Your task to perform on an android device: change notifications settings Image 0: 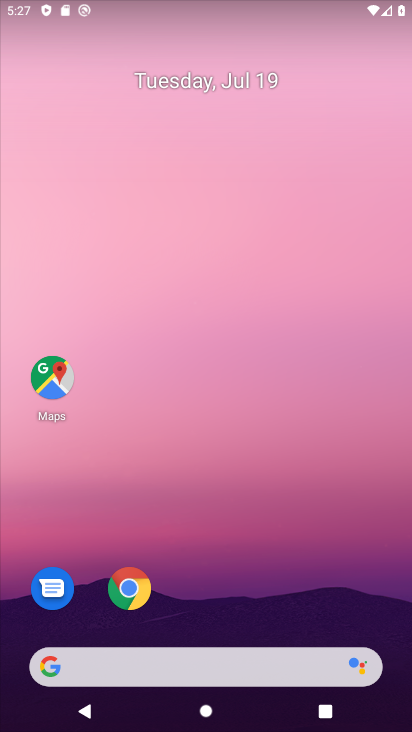
Step 0: drag from (172, 622) to (164, 198)
Your task to perform on an android device: change notifications settings Image 1: 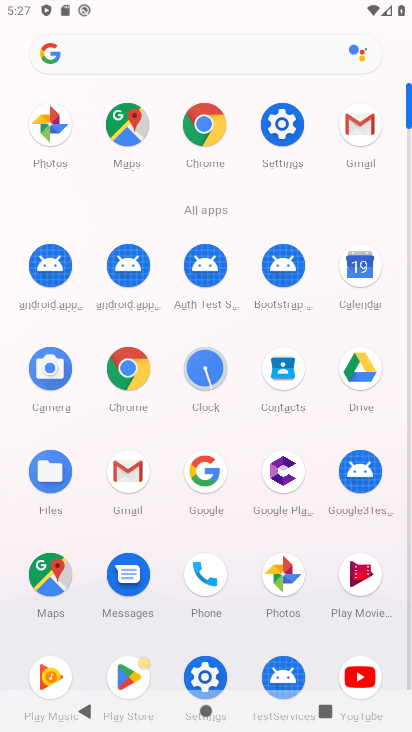
Step 1: click (287, 115)
Your task to perform on an android device: change notifications settings Image 2: 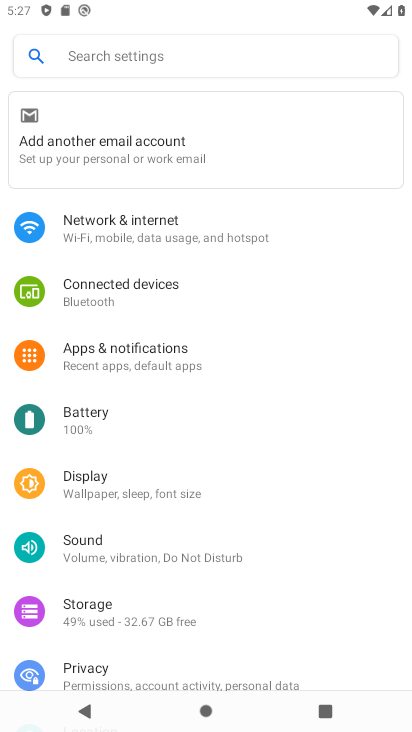
Step 2: click (131, 348)
Your task to perform on an android device: change notifications settings Image 3: 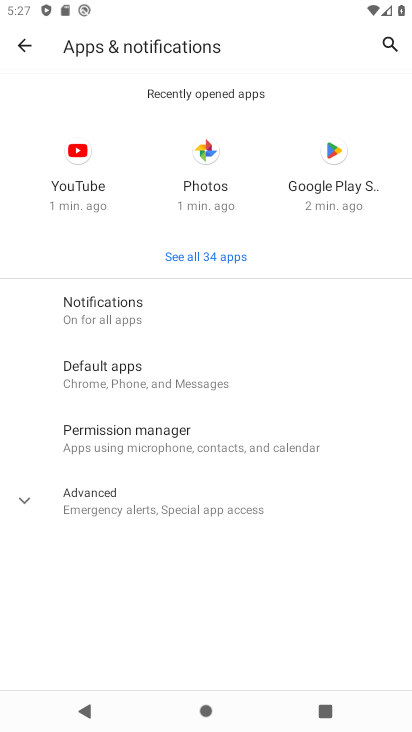
Step 3: click (149, 335)
Your task to perform on an android device: change notifications settings Image 4: 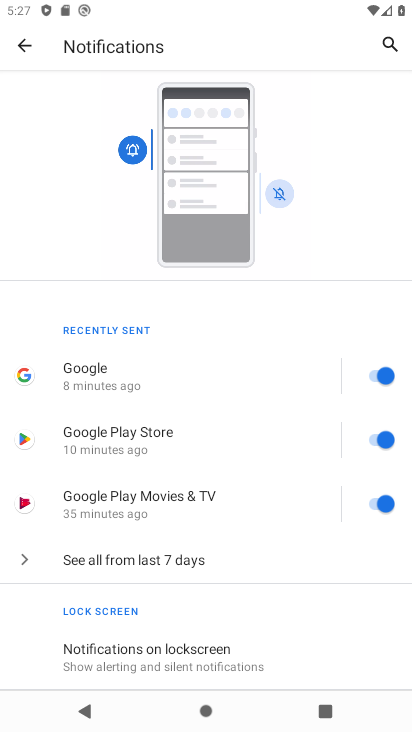
Step 4: drag from (283, 646) to (285, 234)
Your task to perform on an android device: change notifications settings Image 5: 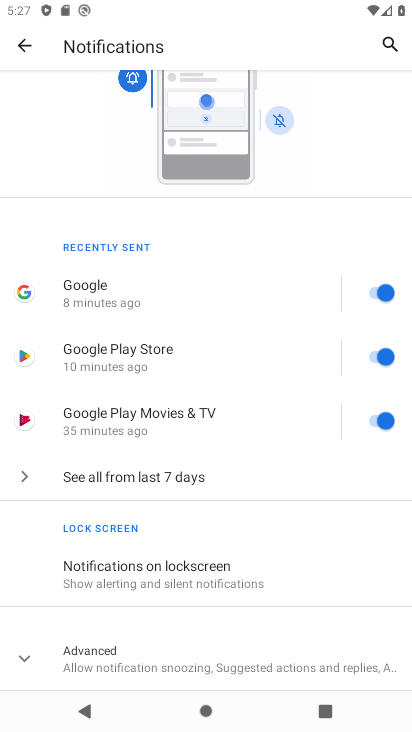
Step 5: click (206, 660)
Your task to perform on an android device: change notifications settings Image 6: 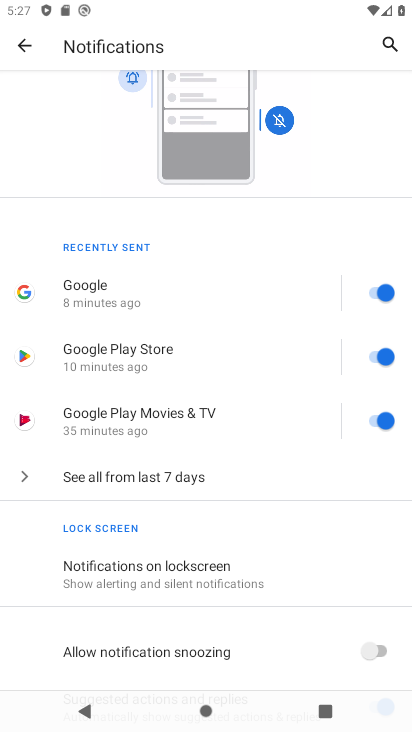
Step 6: click (206, 660)
Your task to perform on an android device: change notifications settings Image 7: 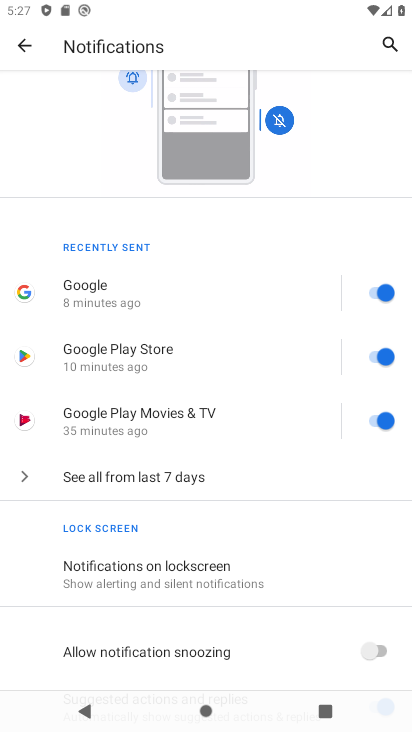
Step 7: drag from (246, 658) to (246, 309)
Your task to perform on an android device: change notifications settings Image 8: 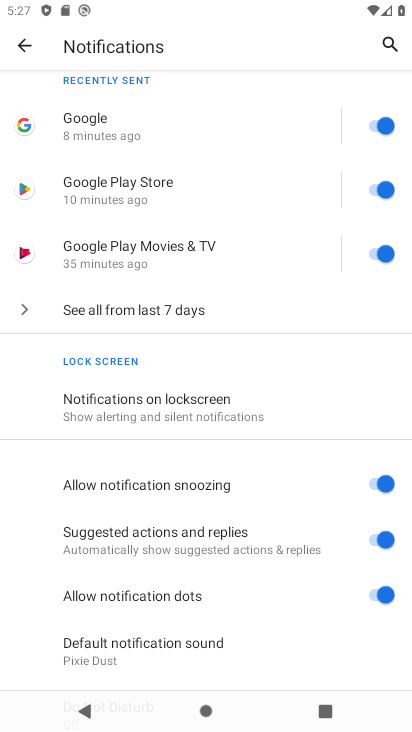
Step 8: click (382, 540)
Your task to perform on an android device: change notifications settings Image 9: 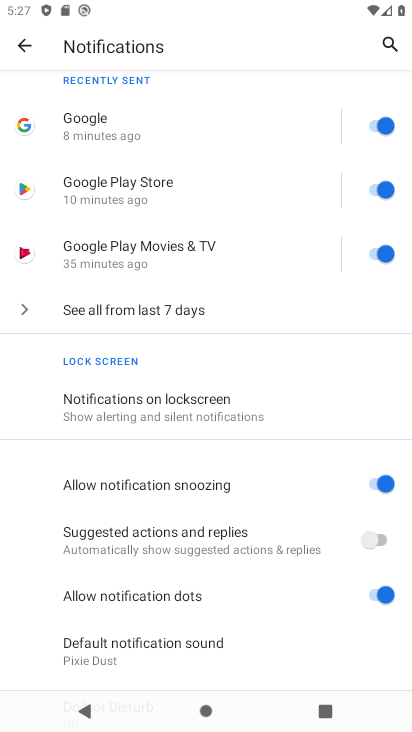
Step 9: click (384, 604)
Your task to perform on an android device: change notifications settings Image 10: 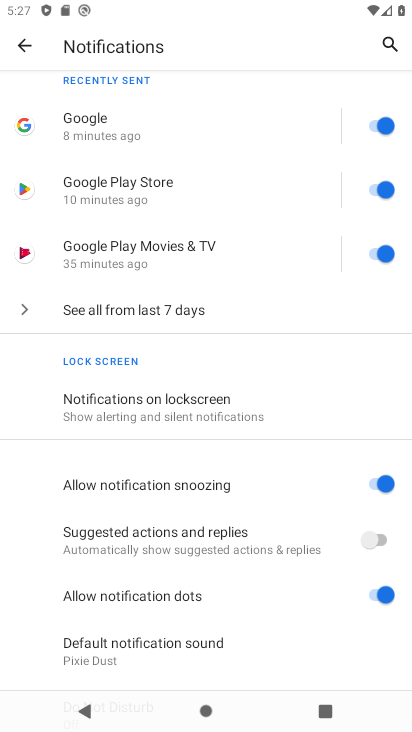
Step 10: task complete